Your task to perform on an android device: change notifications settings Image 0: 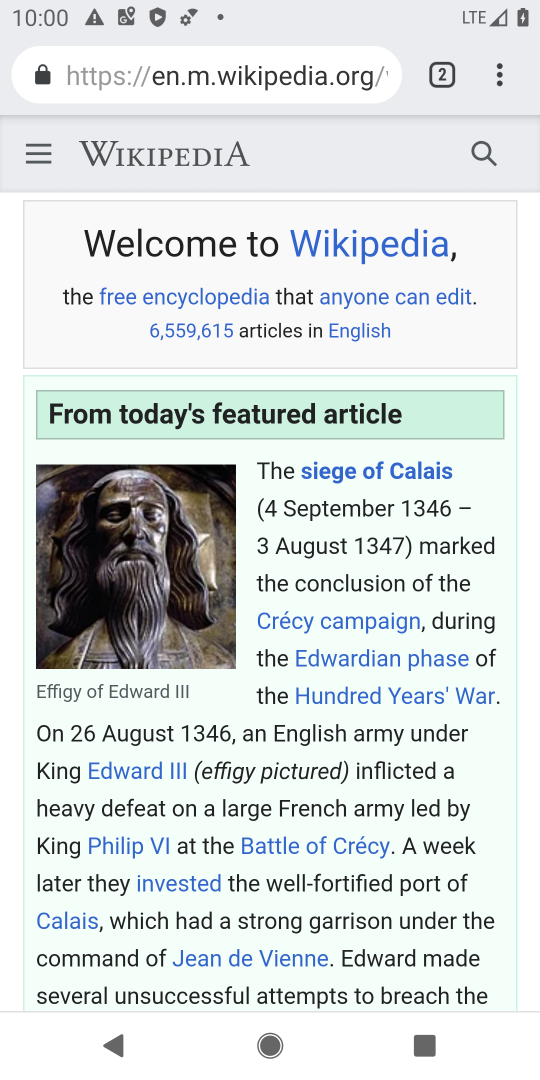
Step 0: press home button
Your task to perform on an android device: change notifications settings Image 1: 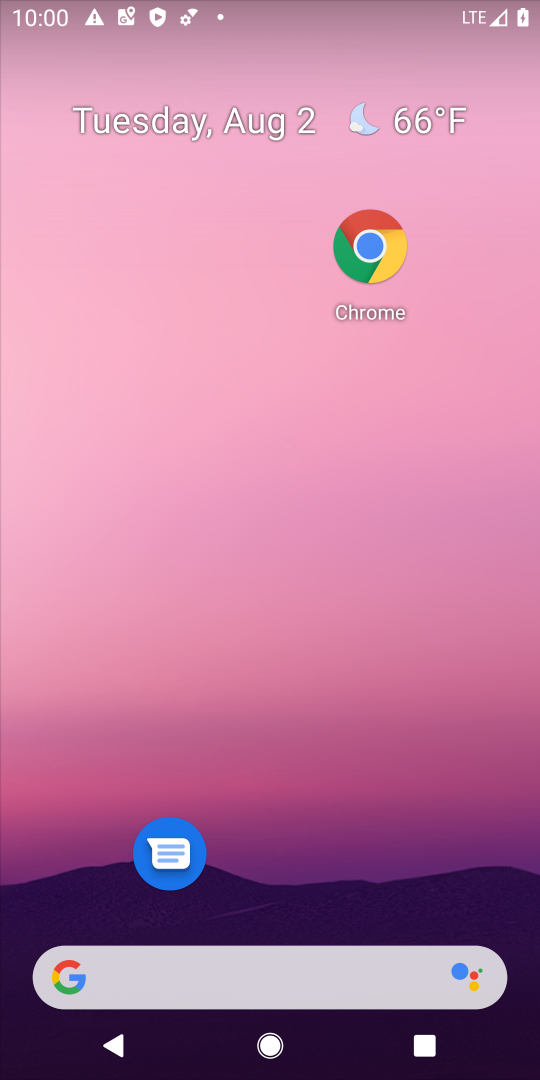
Step 1: drag from (290, 871) to (313, 4)
Your task to perform on an android device: change notifications settings Image 2: 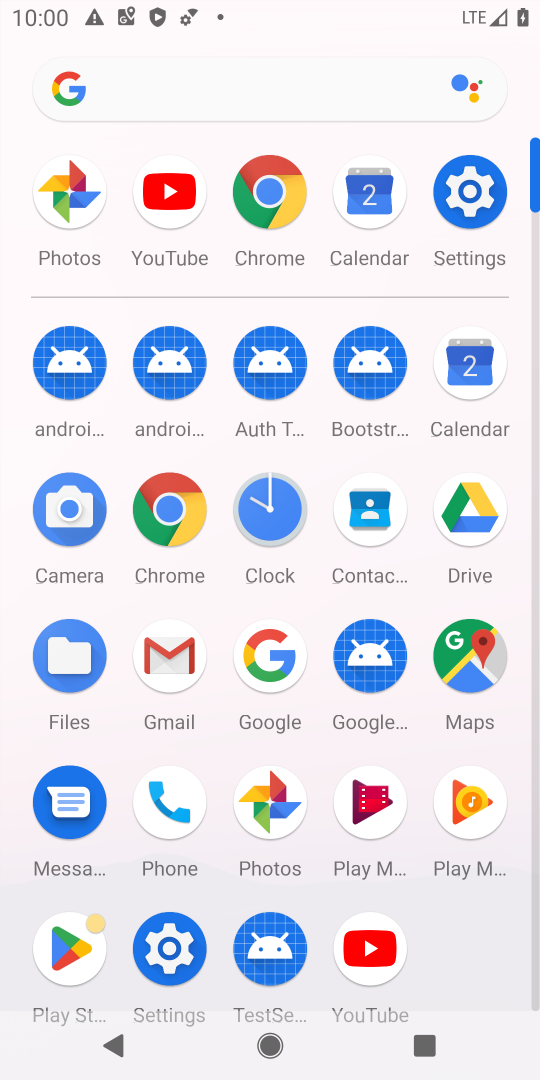
Step 2: click (470, 202)
Your task to perform on an android device: change notifications settings Image 3: 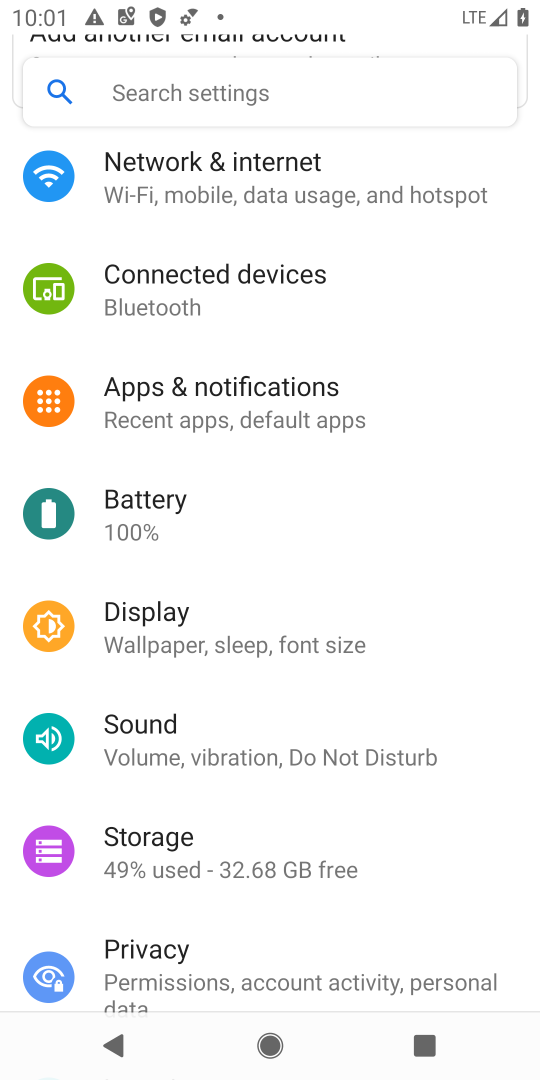
Step 3: click (206, 428)
Your task to perform on an android device: change notifications settings Image 4: 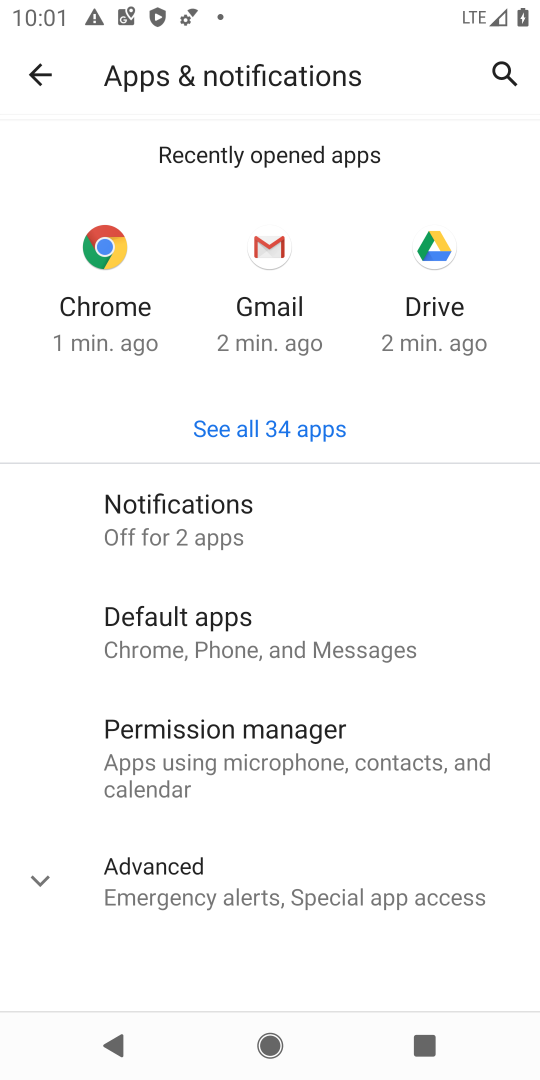
Step 4: click (287, 504)
Your task to perform on an android device: change notifications settings Image 5: 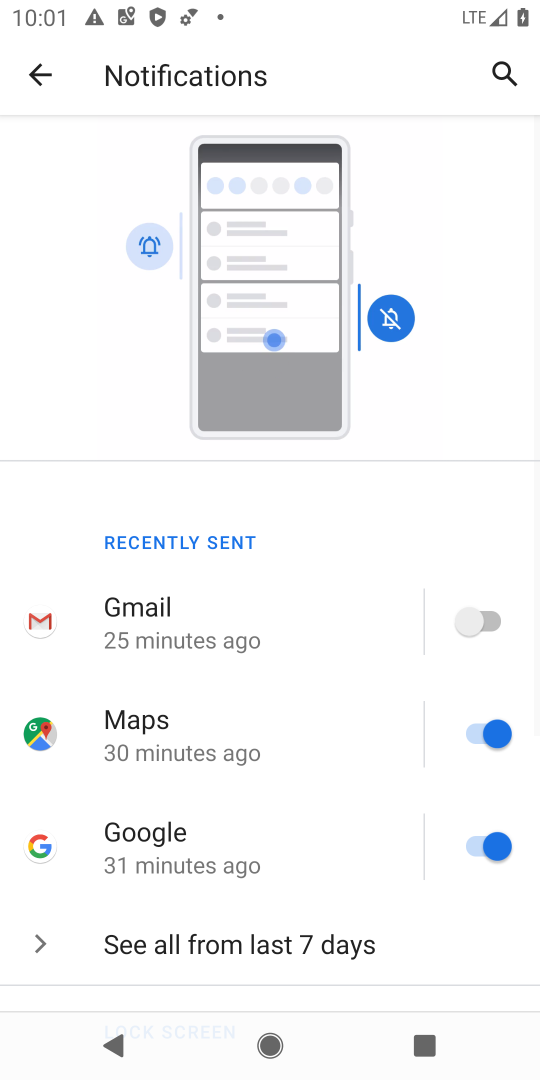
Step 5: task complete